Your task to perform on an android device: Open maps Image 0: 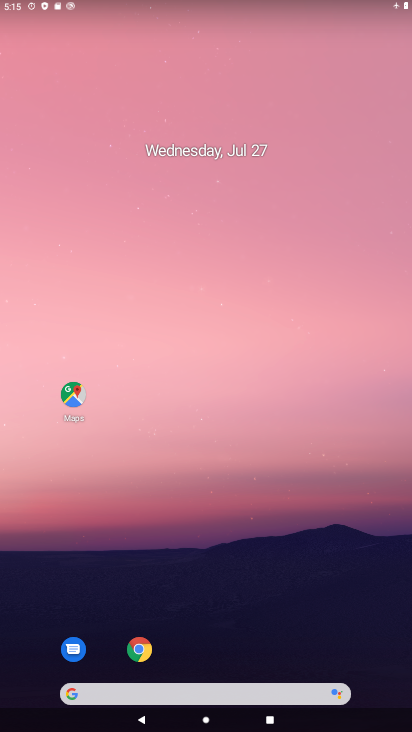
Step 0: click (71, 394)
Your task to perform on an android device: Open maps Image 1: 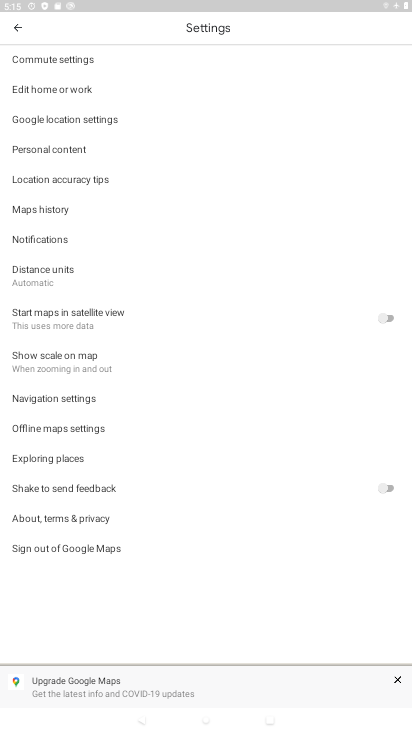
Step 1: press home button
Your task to perform on an android device: Open maps Image 2: 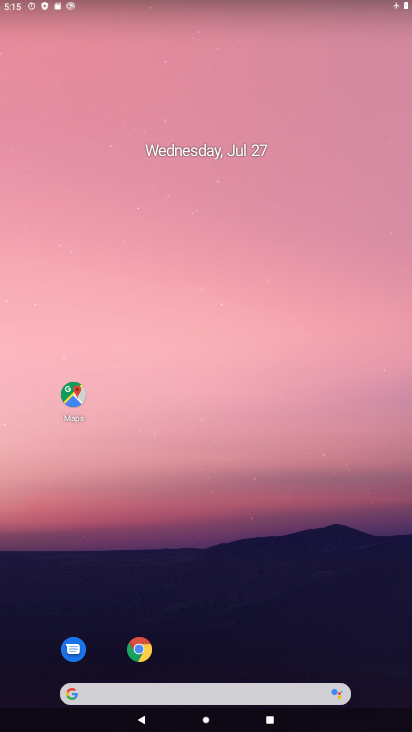
Step 2: click (75, 396)
Your task to perform on an android device: Open maps Image 3: 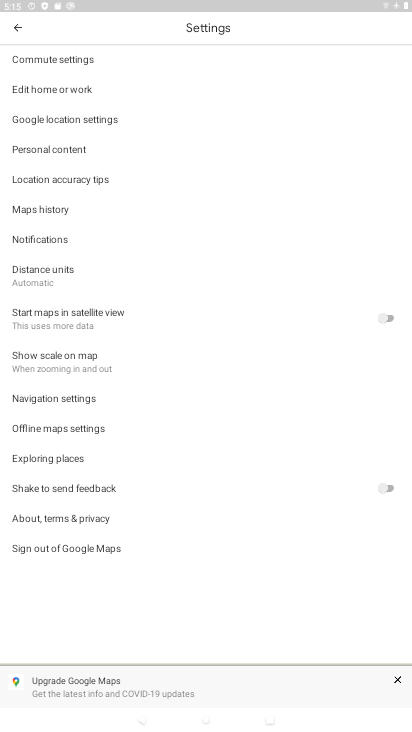
Step 3: task complete